Your task to perform on an android device: empty trash in google photos Image 0: 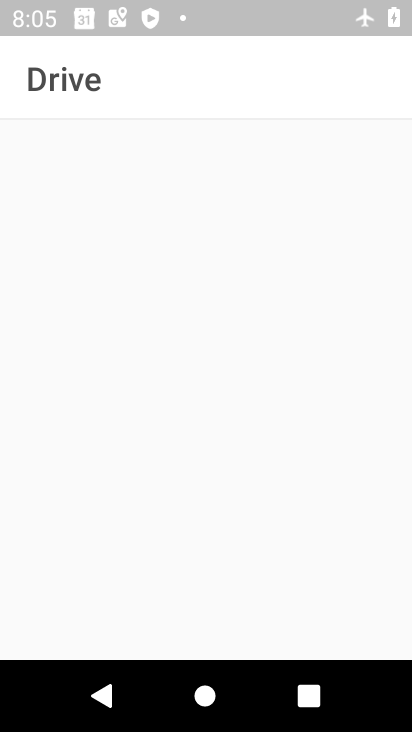
Step 0: press home button
Your task to perform on an android device: empty trash in google photos Image 1: 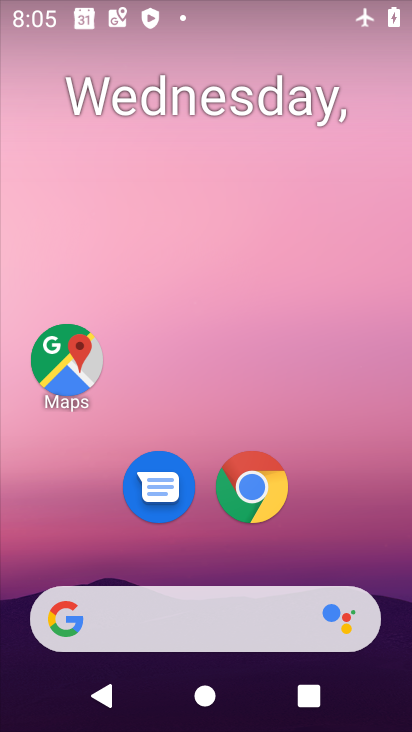
Step 1: drag from (364, 584) to (404, 30)
Your task to perform on an android device: empty trash in google photos Image 2: 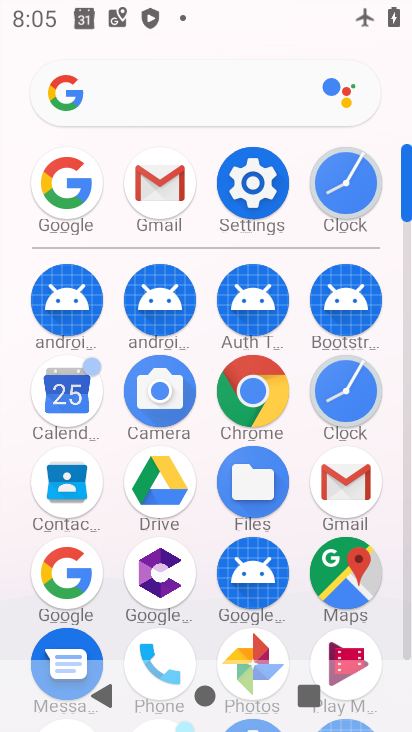
Step 2: click (407, 555)
Your task to perform on an android device: empty trash in google photos Image 3: 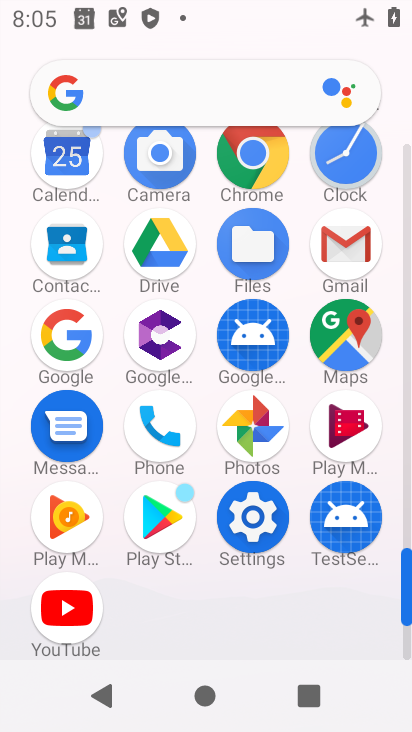
Step 3: click (252, 444)
Your task to perform on an android device: empty trash in google photos Image 4: 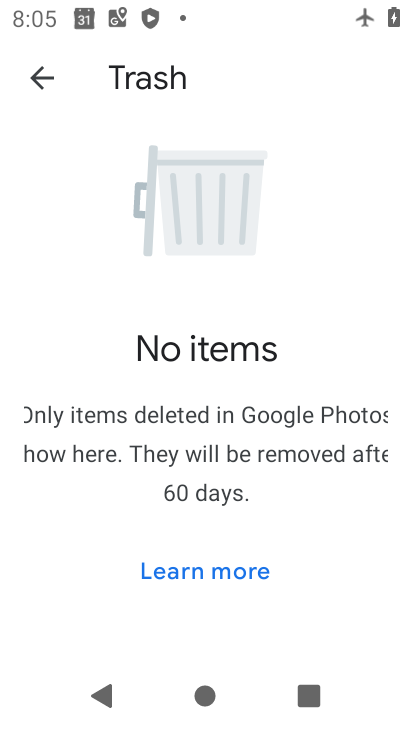
Step 4: task complete